Your task to perform on an android device: find photos in the google photos app Image 0: 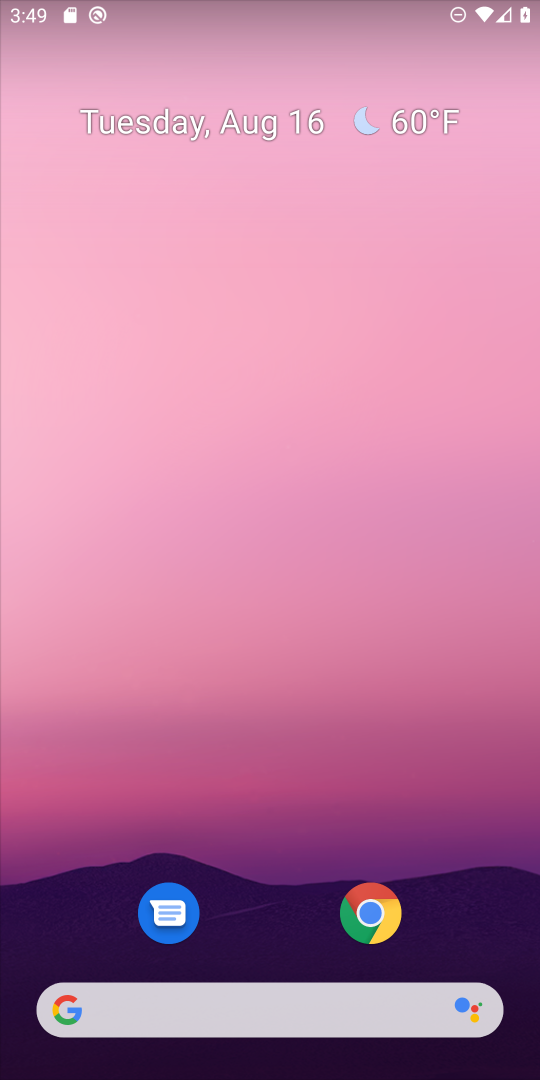
Step 0: drag from (495, 937) to (479, 202)
Your task to perform on an android device: find photos in the google photos app Image 1: 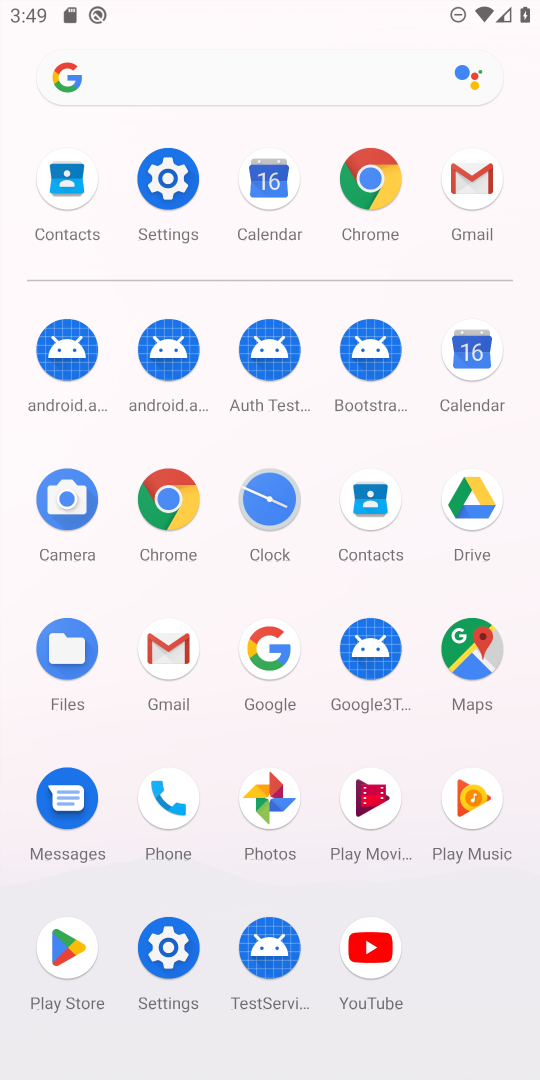
Step 1: click (273, 796)
Your task to perform on an android device: find photos in the google photos app Image 2: 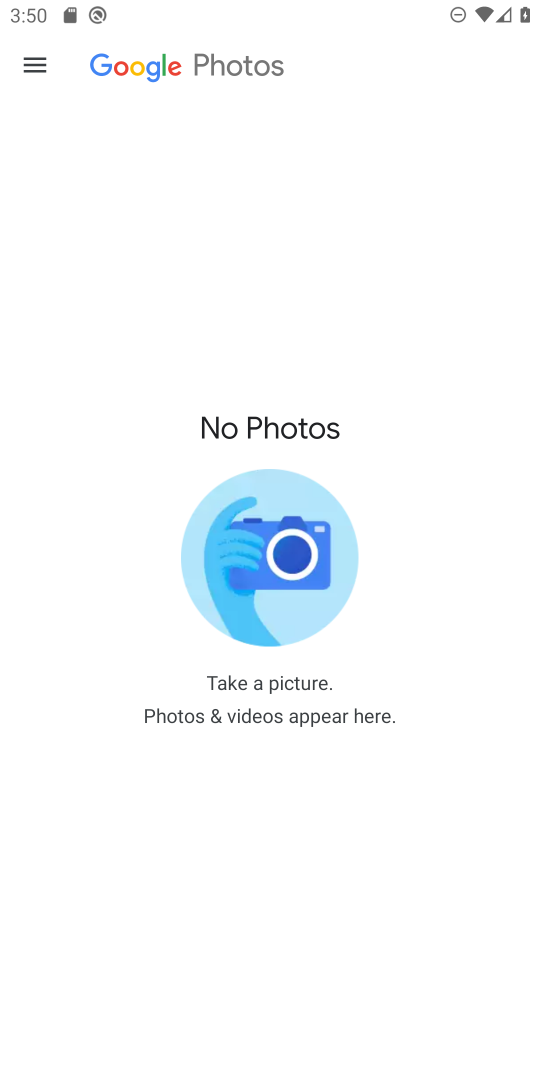
Step 2: task complete